Your task to perform on an android device: Search for seafood restaurants on Google Maps Image 0: 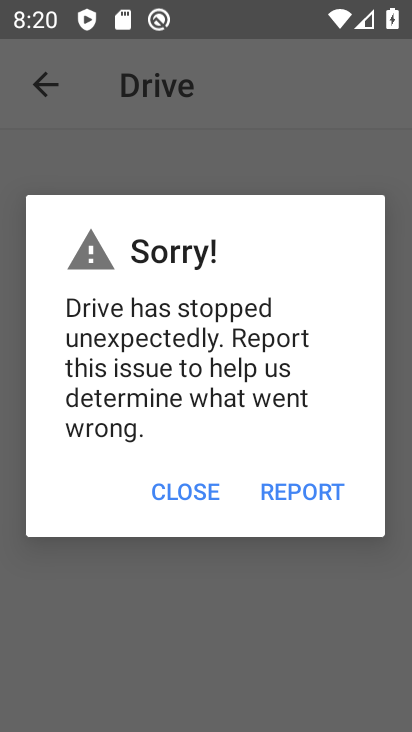
Step 0: press home button
Your task to perform on an android device: Search for seafood restaurants on Google Maps Image 1: 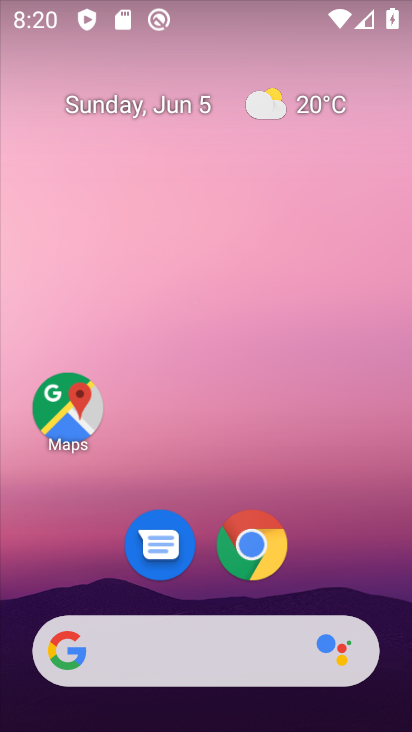
Step 1: click (49, 395)
Your task to perform on an android device: Search for seafood restaurants on Google Maps Image 2: 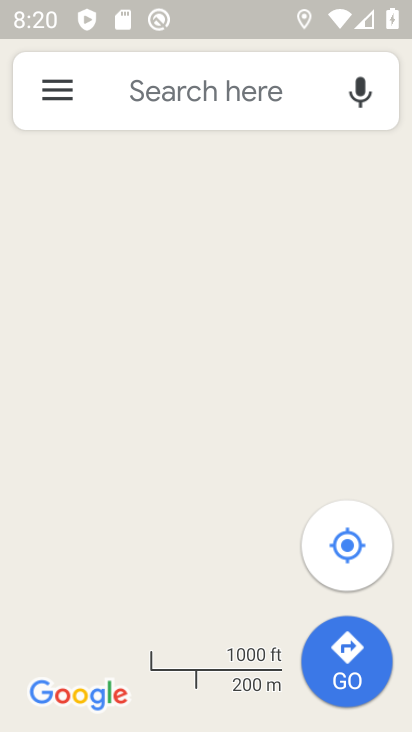
Step 2: click (195, 97)
Your task to perform on an android device: Search for seafood restaurants on Google Maps Image 3: 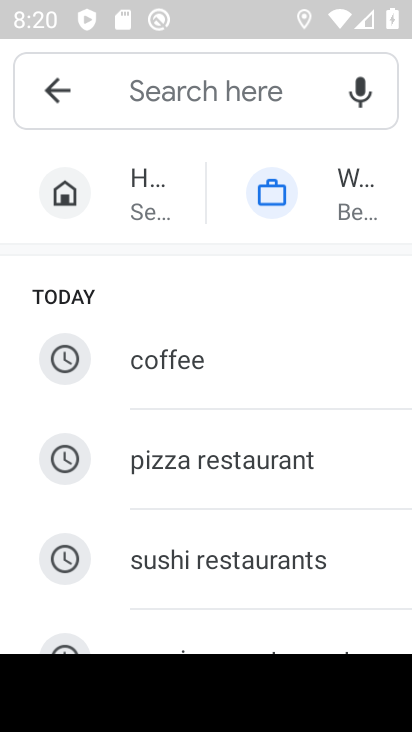
Step 3: type "seafood restaurants"
Your task to perform on an android device: Search for seafood restaurants on Google Maps Image 4: 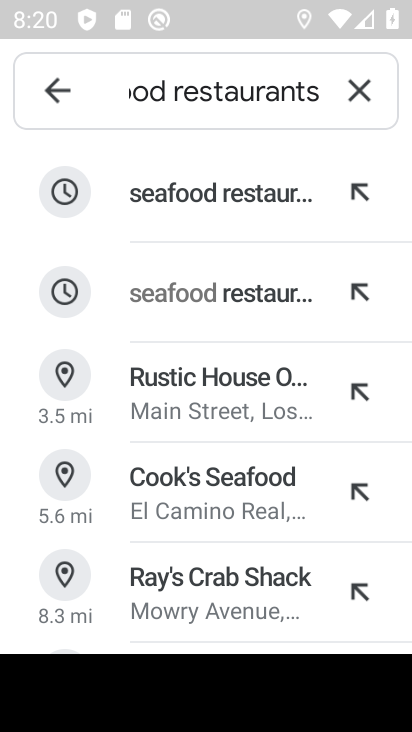
Step 4: click (209, 212)
Your task to perform on an android device: Search for seafood restaurants on Google Maps Image 5: 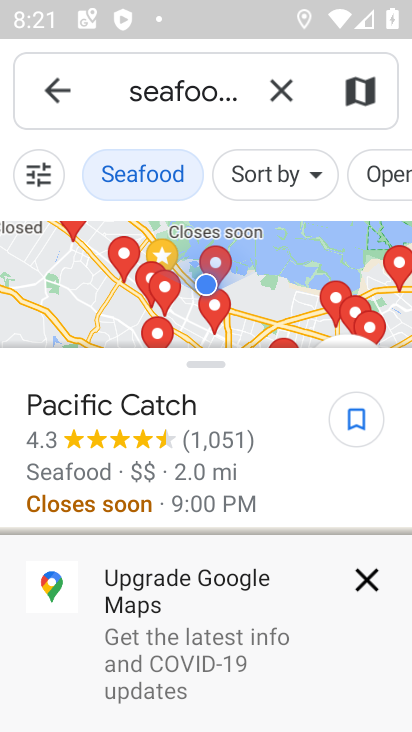
Step 5: click (363, 587)
Your task to perform on an android device: Search for seafood restaurants on Google Maps Image 6: 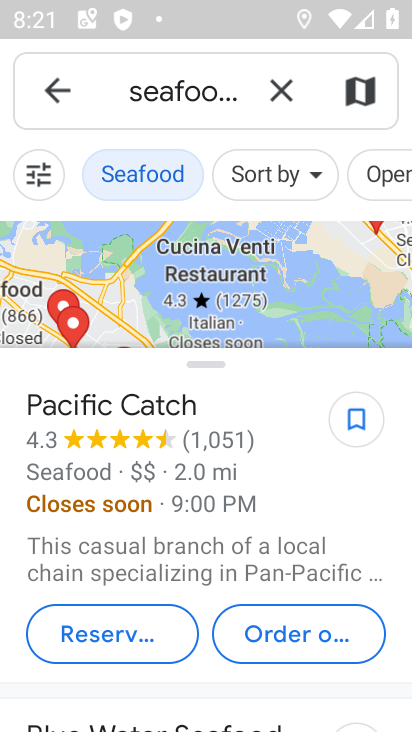
Step 6: task complete